Your task to perform on an android device: delete a single message in the gmail app Image 0: 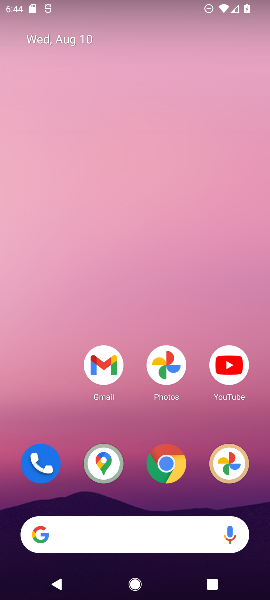
Step 0: click (101, 366)
Your task to perform on an android device: delete a single message in the gmail app Image 1: 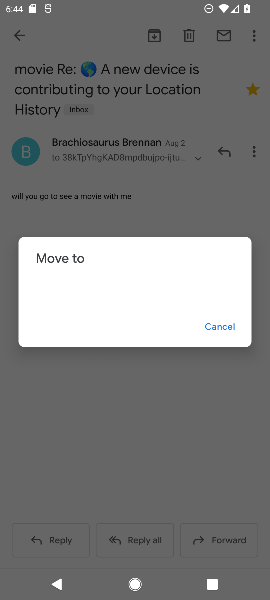
Step 1: click (219, 328)
Your task to perform on an android device: delete a single message in the gmail app Image 2: 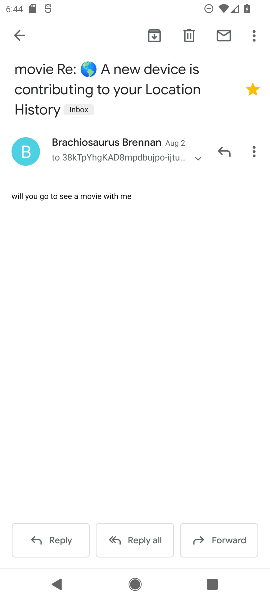
Step 2: click (187, 32)
Your task to perform on an android device: delete a single message in the gmail app Image 3: 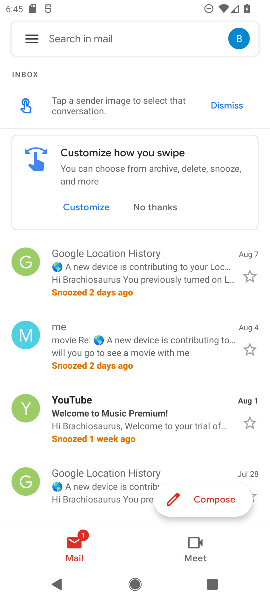
Step 3: task complete